Your task to perform on an android device: turn on sleep mode Image 0: 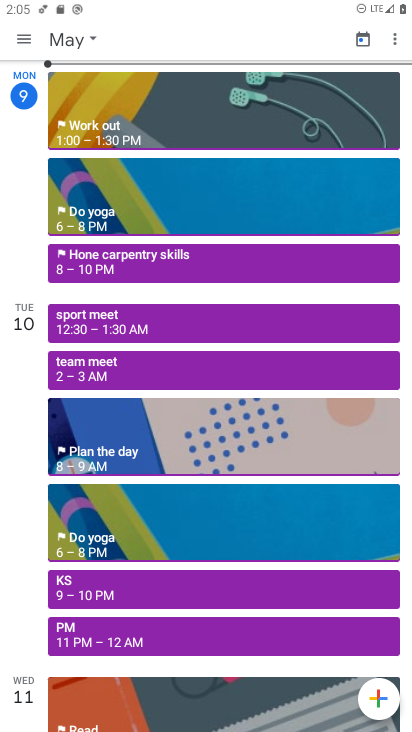
Step 0: press home button
Your task to perform on an android device: turn on sleep mode Image 1: 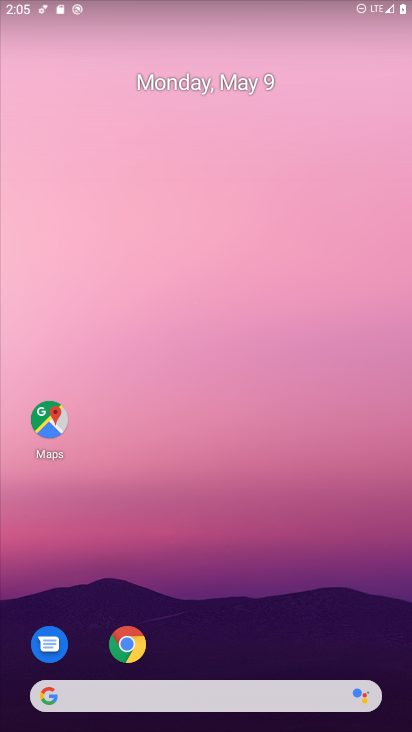
Step 1: drag from (254, 567) to (236, 14)
Your task to perform on an android device: turn on sleep mode Image 2: 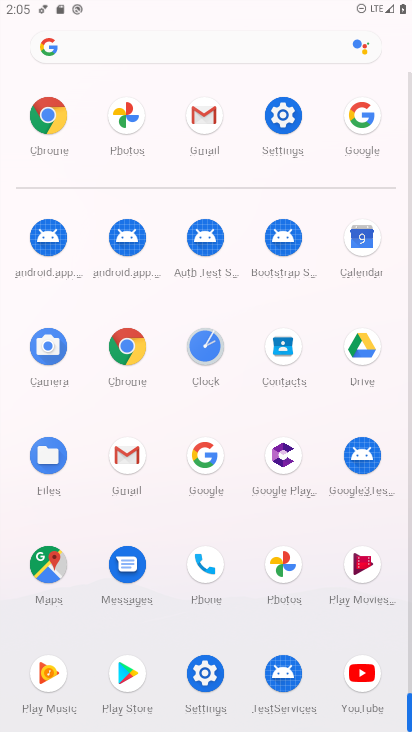
Step 2: drag from (254, 600) to (242, 240)
Your task to perform on an android device: turn on sleep mode Image 3: 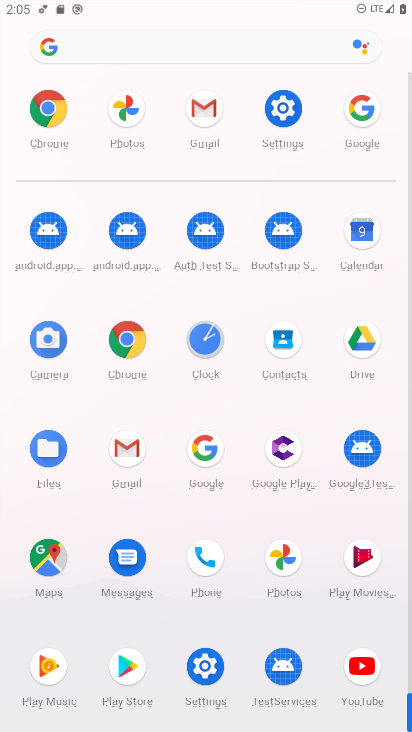
Step 3: click (193, 685)
Your task to perform on an android device: turn on sleep mode Image 4: 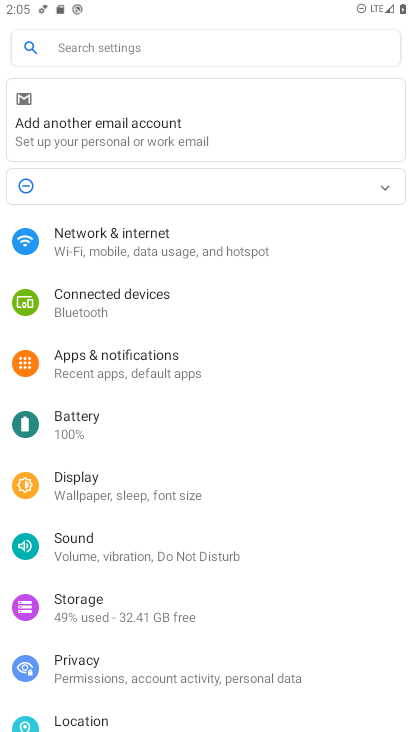
Step 4: task complete